Your task to perform on an android device: What's on my calendar today? Image 0: 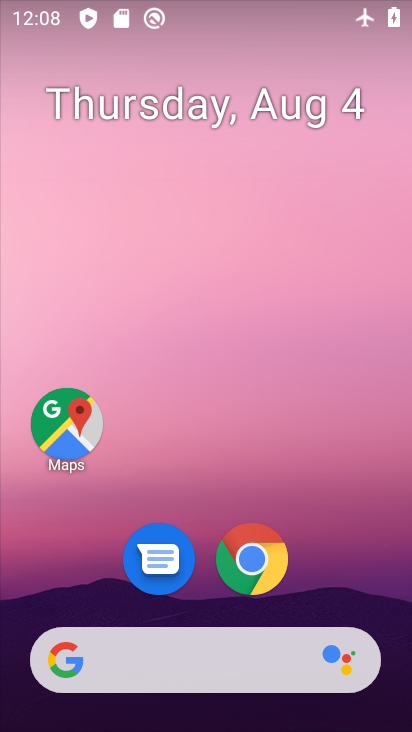
Step 0: drag from (185, 656) to (244, 121)
Your task to perform on an android device: What's on my calendar today? Image 1: 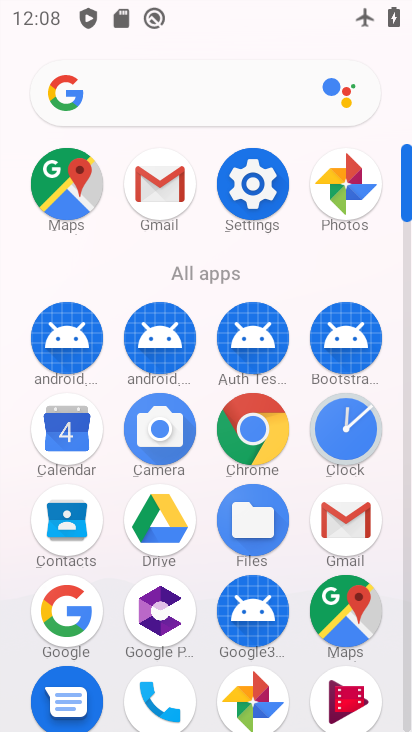
Step 1: drag from (194, 602) to (195, 354)
Your task to perform on an android device: What's on my calendar today? Image 2: 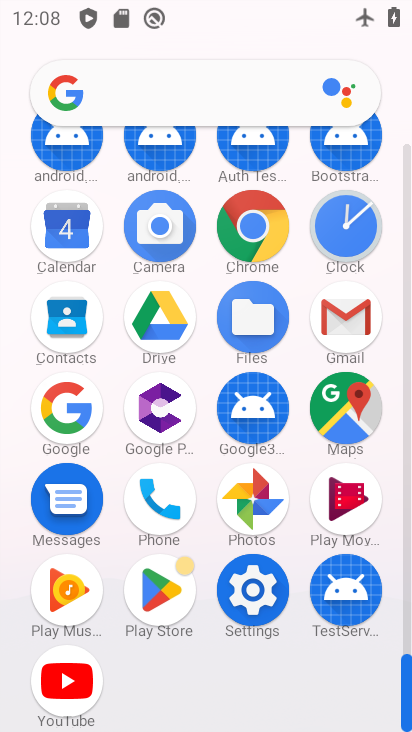
Step 2: click (70, 234)
Your task to perform on an android device: What's on my calendar today? Image 3: 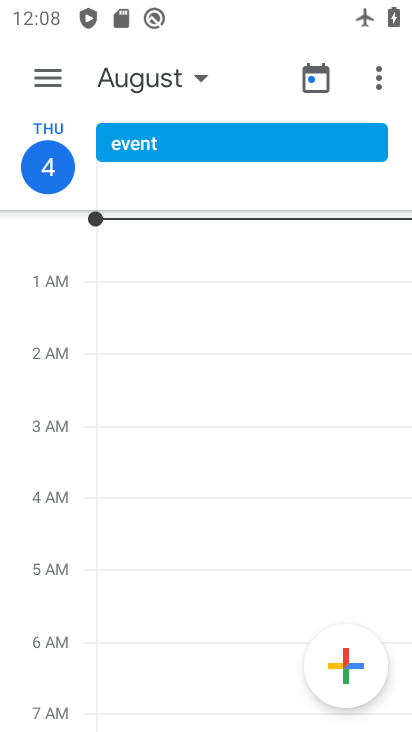
Step 3: click (322, 78)
Your task to perform on an android device: What's on my calendar today? Image 4: 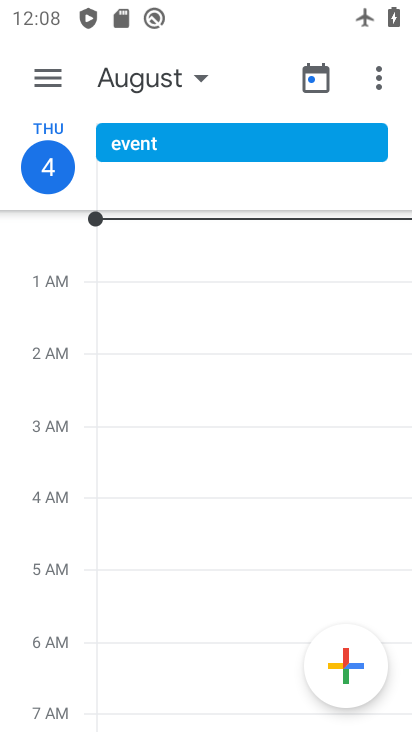
Step 4: click (196, 75)
Your task to perform on an android device: What's on my calendar today? Image 5: 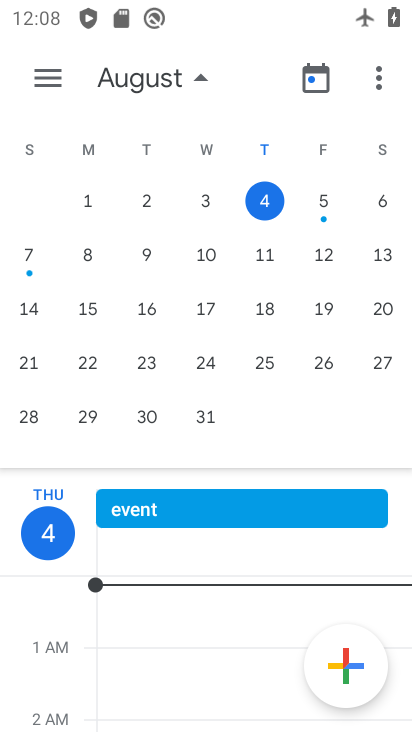
Step 5: click (42, 76)
Your task to perform on an android device: What's on my calendar today? Image 6: 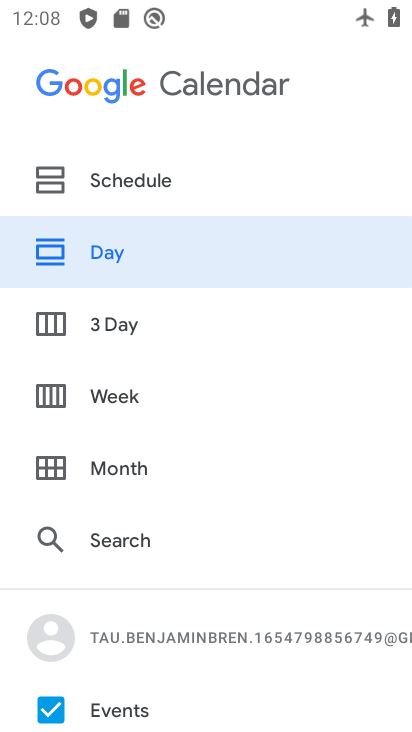
Step 6: click (111, 173)
Your task to perform on an android device: What's on my calendar today? Image 7: 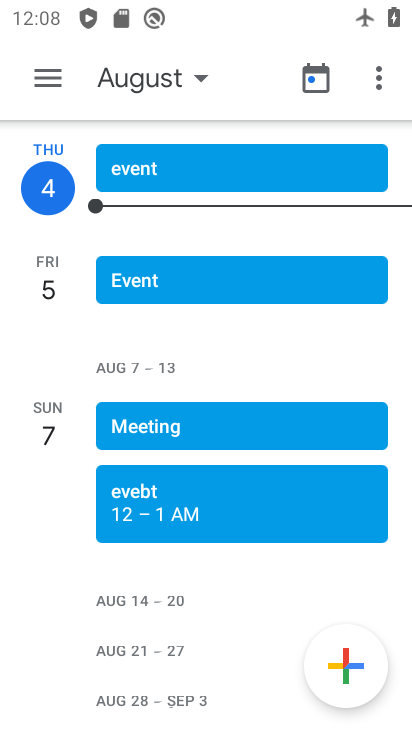
Step 7: task complete